Your task to perform on an android device: see sites visited before in the chrome app Image 0: 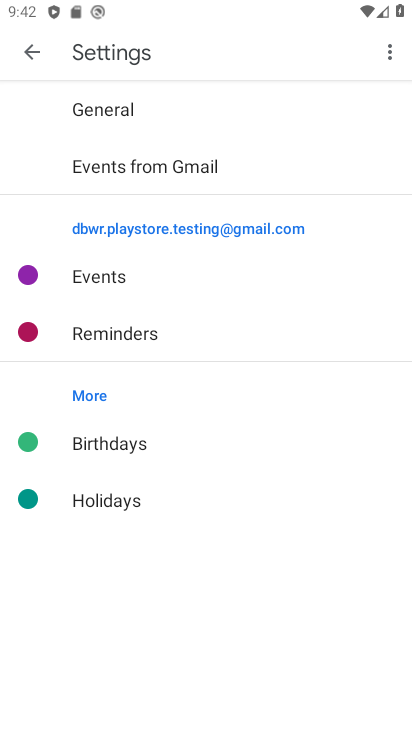
Step 0: press home button
Your task to perform on an android device: see sites visited before in the chrome app Image 1: 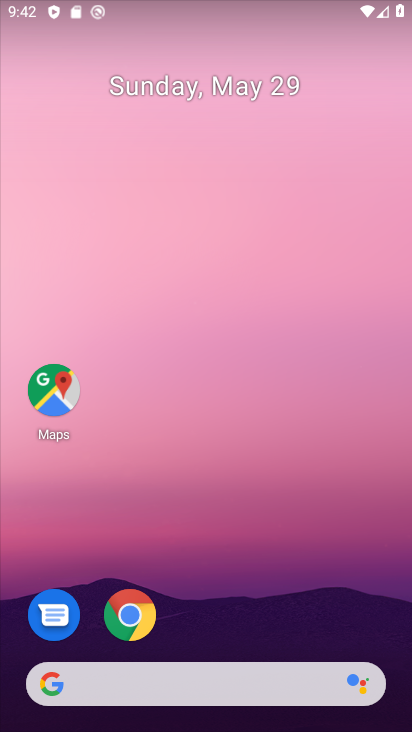
Step 1: drag from (236, 659) to (162, 13)
Your task to perform on an android device: see sites visited before in the chrome app Image 2: 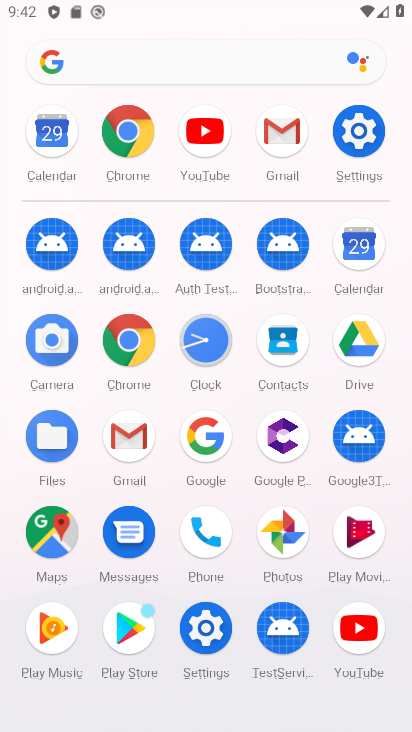
Step 2: click (116, 333)
Your task to perform on an android device: see sites visited before in the chrome app Image 3: 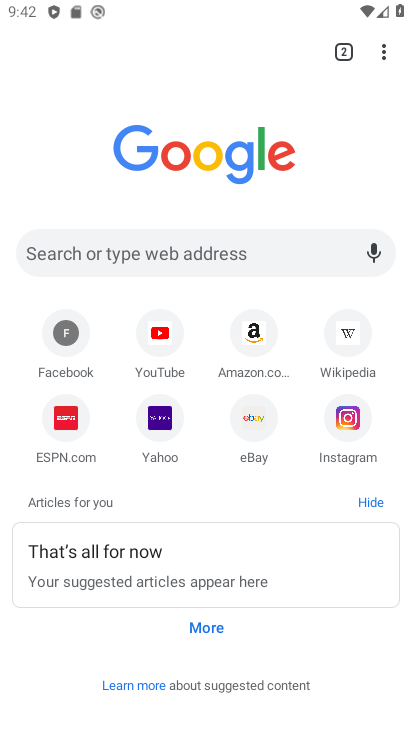
Step 3: click (382, 51)
Your task to perform on an android device: see sites visited before in the chrome app Image 4: 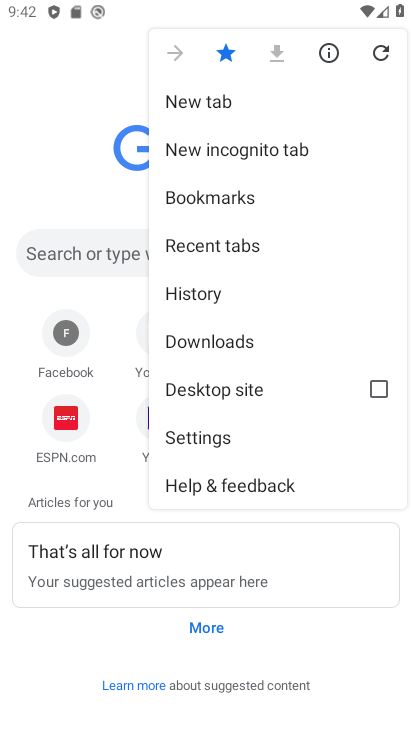
Step 4: click (204, 288)
Your task to perform on an android device: see sites visited before in the chrome app Image 5: 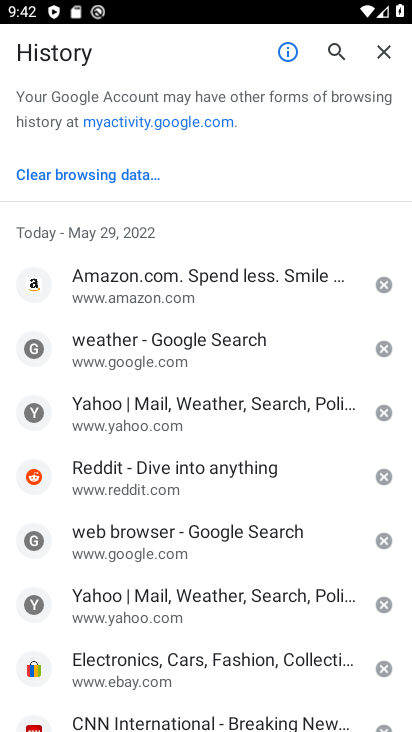
Step 5: task complete